Your task to perform on an android device: check the backup settings in the google photos Image 0: 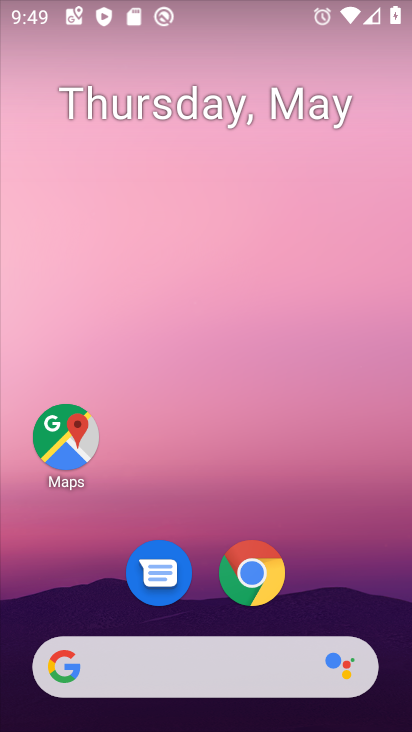
Step 0: drag from (206, 601) to (203, 268)
Your task to perform on an android device: check the backup settings in the google photos Image 1: 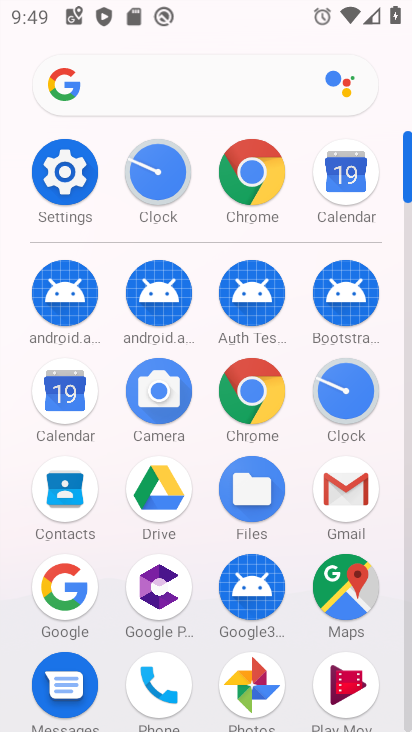
Step 1: click (241, 670)
Your task to perform on an android device: check the backup settings in the google photos Image 2: 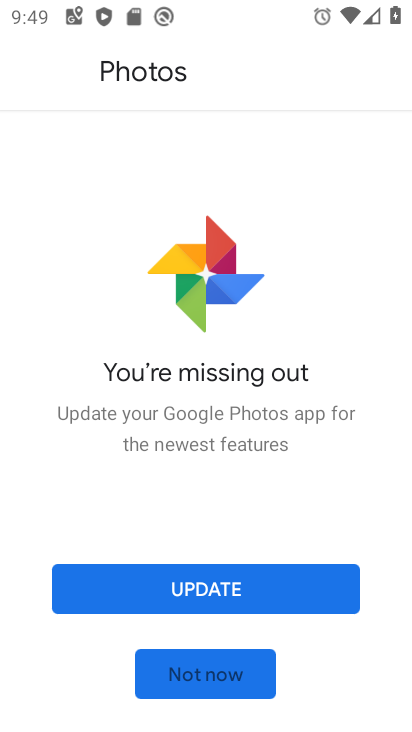
Step 2: click (253, 663)
Your task to perform on an android device: check the backup settings in the google photos Image 3: 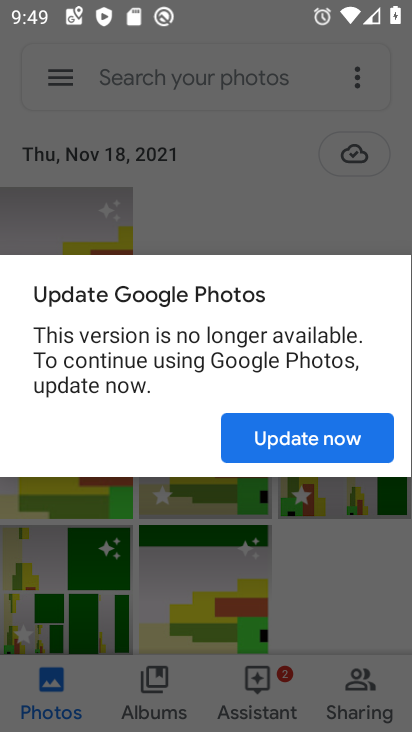
Step 3: click (287, 448)
Your task to perform on an android device: check the backup settings in the google photos Image 4: 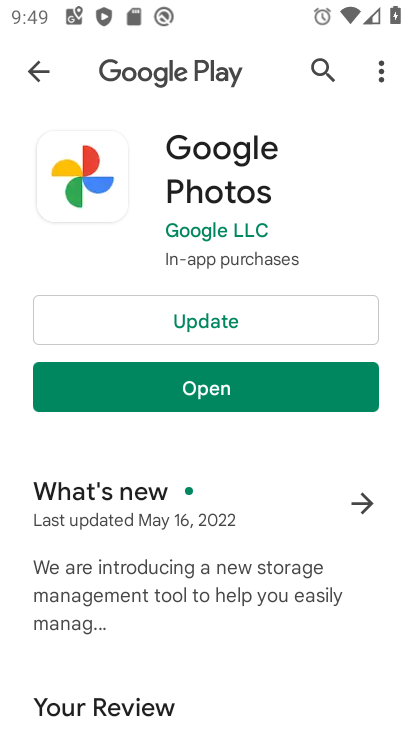
Step 4: click (280, 374)
Your task to perform on an android device: check the backup settings in the google photos Image 5: 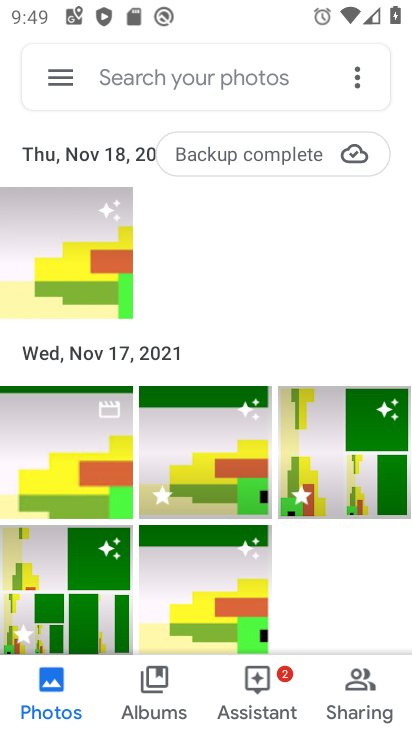
Step 5: click (48, 76)
Your task to perform on an android device: check the backup settings in the google photos Image 6: 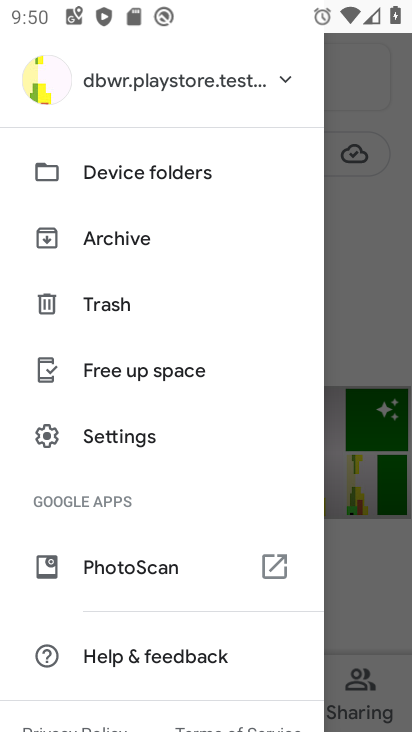
Step 6: click (137, 430)
Your task to perform on an android device: check the backup settings in the google photos Image 7: 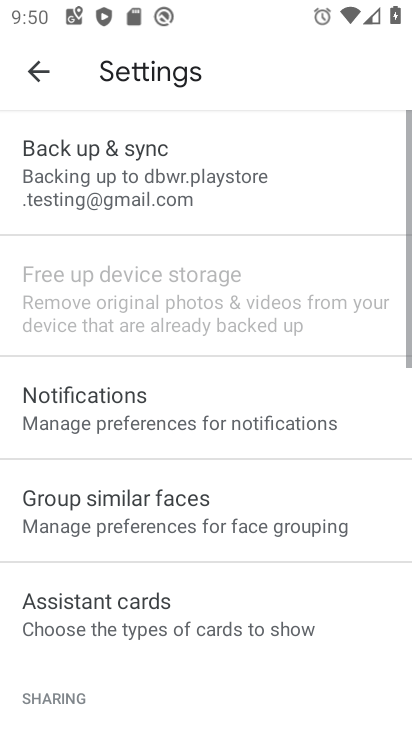
Step 7: click (89, 129)
Your task to perform on an android device: check the backup settings in the google photos Image 8: 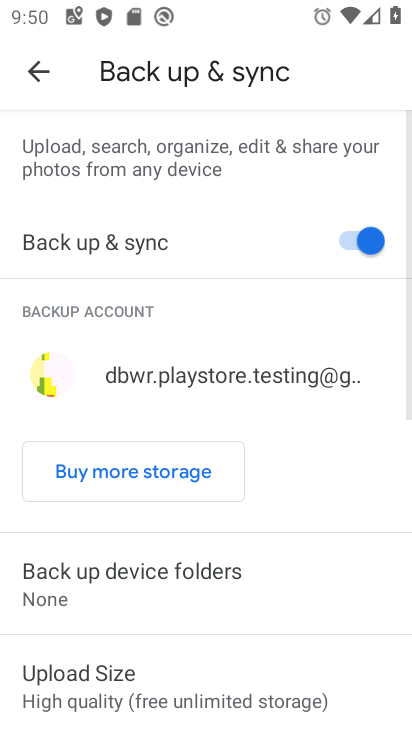
Step 8: task complete